Your task to perform on an android device: all mails in gmail Image 0: 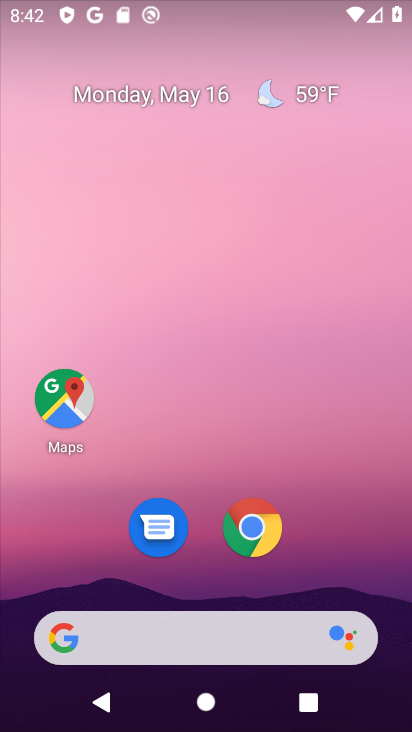
Step 0: drag from (306, 597) to (299, 178)
Your task to perform on an android device: all mails in gmail Image 1: 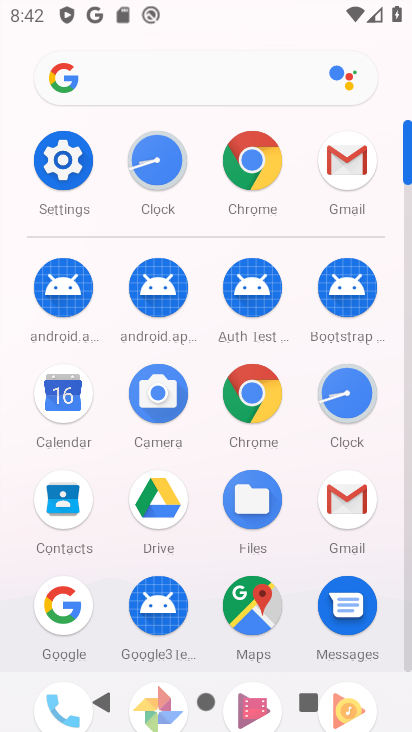
Step 1: click (355, 149)
Your task to perform on an android device: all mails in gmail Image 2: 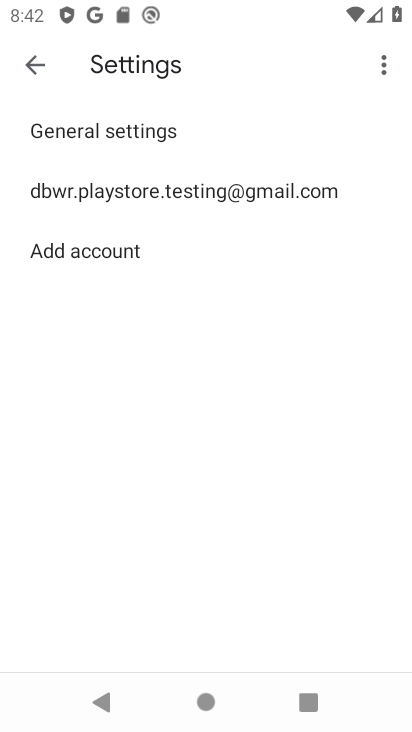
Step 2: click (27, 48)
Your task to perform on an android device: all mails in gmail Image 3: 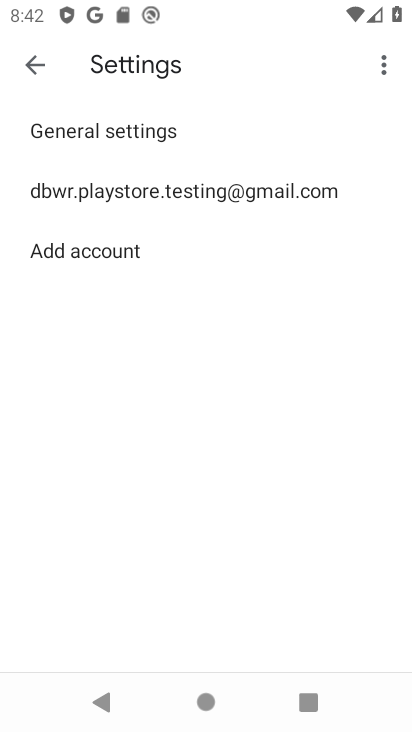
Step 3: click (45, 67)
Your task to perform on an android device: all mails in gmail Image 4: 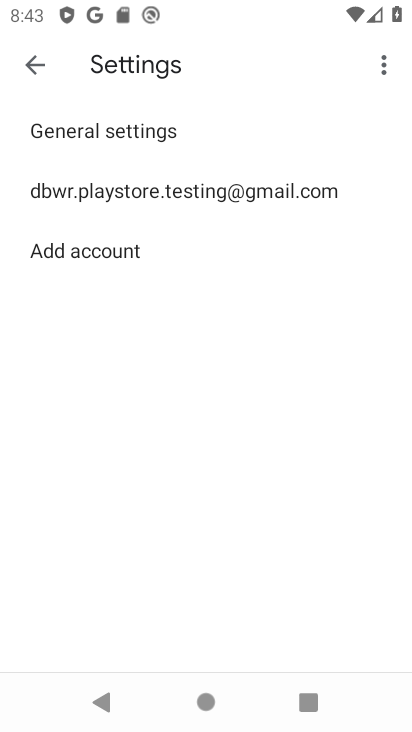
Step 4: click (37, 61)
Your task to perform on an android device: all mails in gmail Image 5: 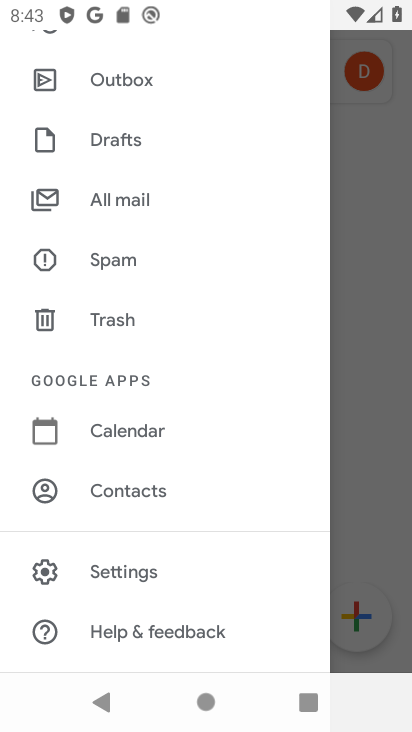
Step 5: click (112, 195)
Your task to perform on an android device: all mails in gmail Image 6: 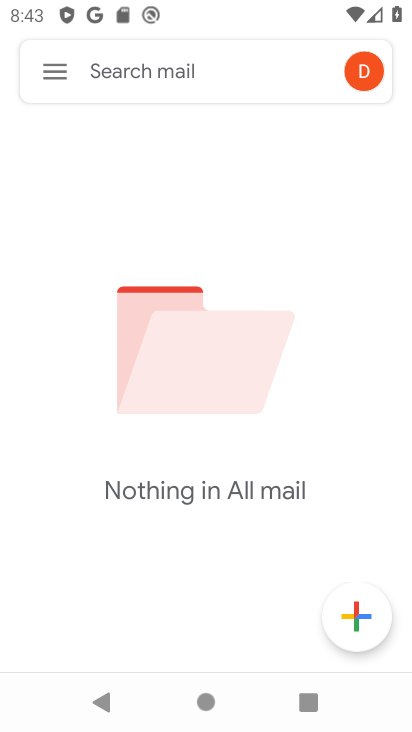
Step 6: task complete